Your task to perform on an android device: What's the weather today? Image 0: 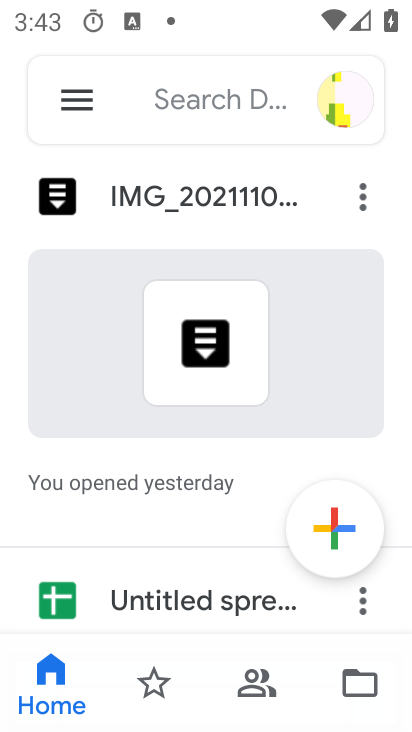
Step 0: press home button
Your task to perform on an android device: What's the weather today? Image 1: 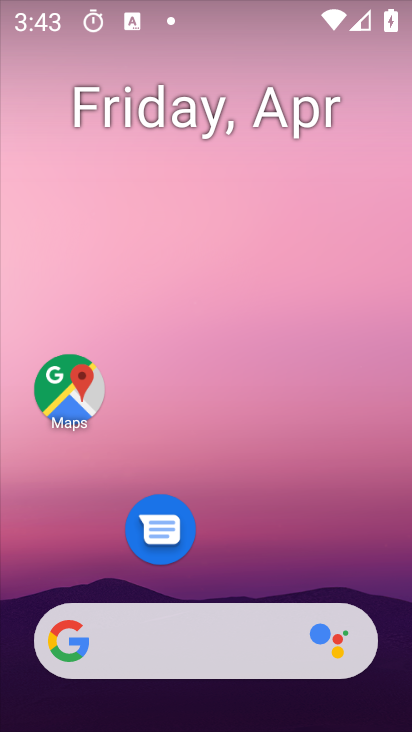
Step 1: drag from (212, 444) to (236, 72)
Your task to perform on an android device: What's the weather today? Image 2: 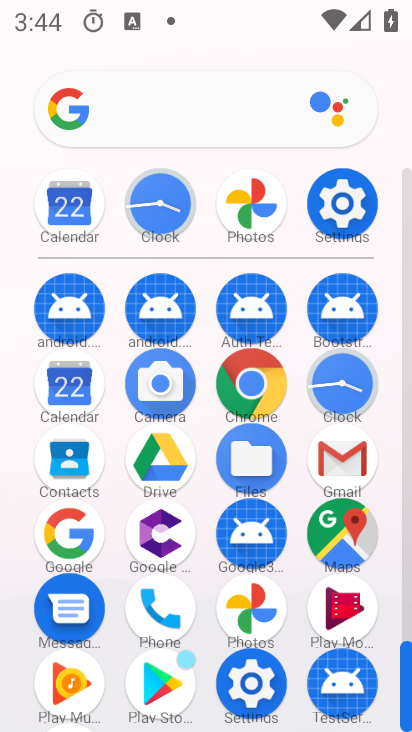
Step 2: click (75, 544)
Your task to perform on an android device: What's the weather today? Image 3: 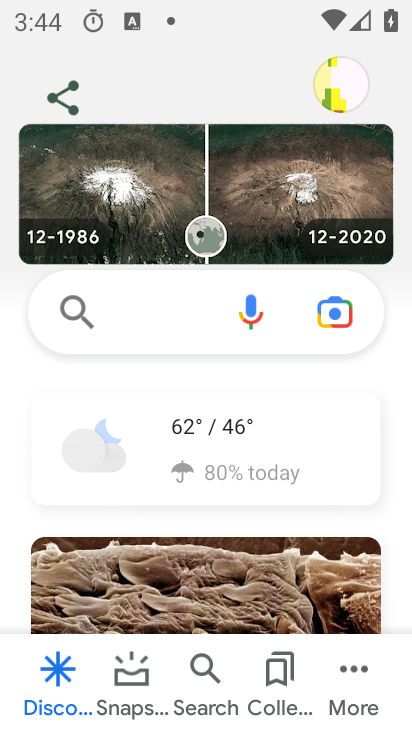
Step 3: click (179, 317)
Your task to perform on an android device: What's the weather today? Image 4: 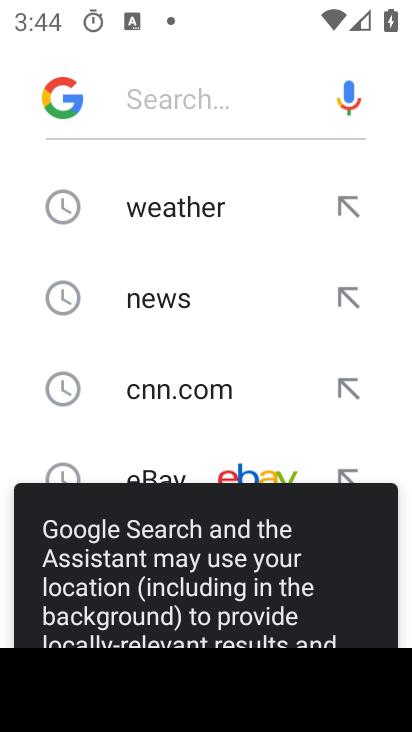
Step 4: click (226, 214)
Your task to perform on an android device: What's the weather today? Image 5: 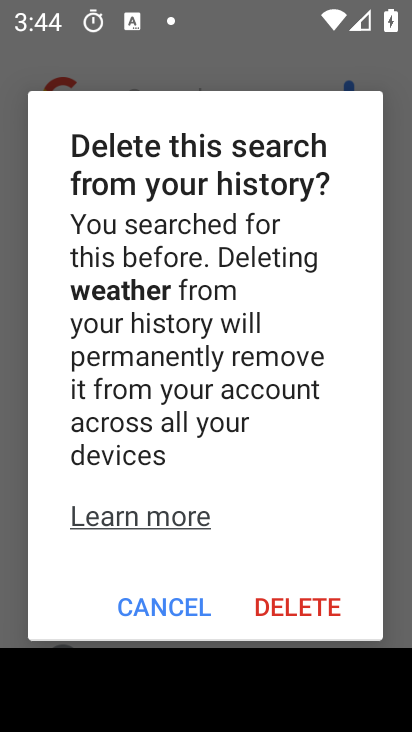
Step 5: click (156, 604)
Your task to perform on an android device: What's the weather today? Image 6: 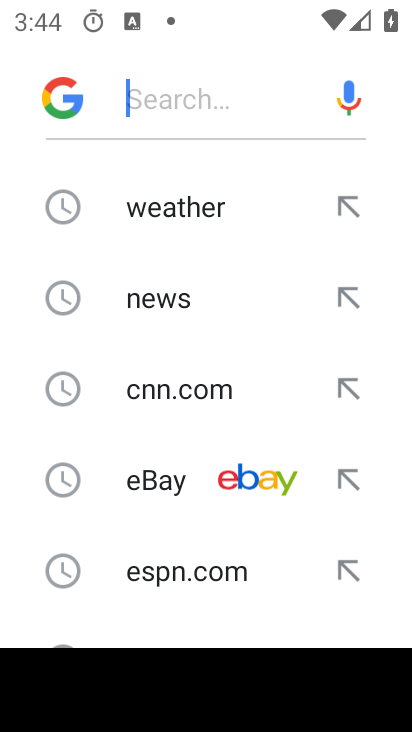
Step 6: click (244, 218)
Your task to perform on an android device: What's the weather today? Image 7: 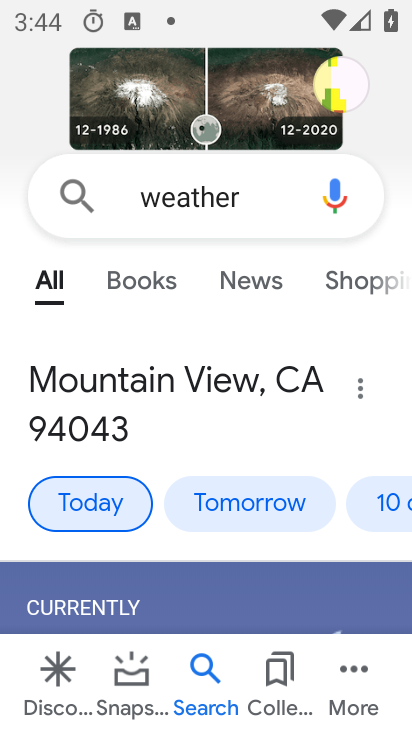
Step 7: task complete